Your task to perform on an android device: set an alarm Image 0: 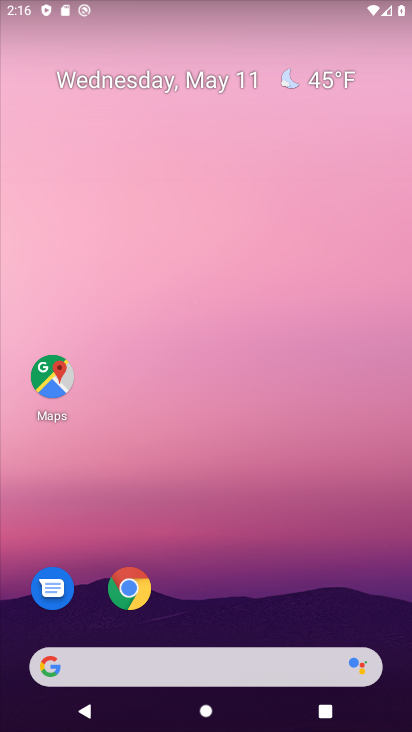
Step 0: drag from (231, 603) to (264, 254)
Your task to perform on an android device: set an alarm Image 1: 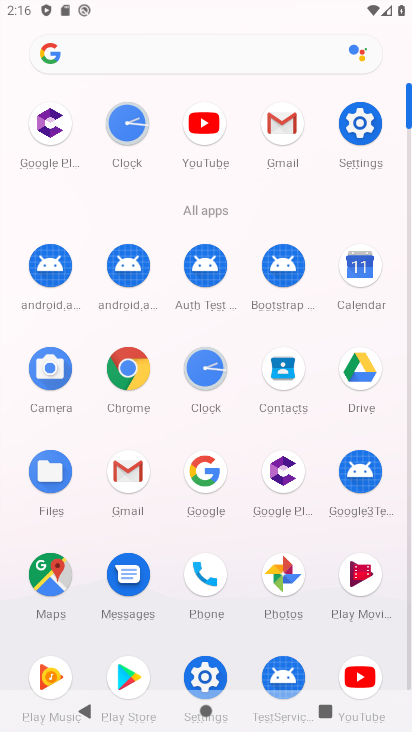
Step 1: click (136, 125)
Your task to perform on an android device: set an alarm Image 2: 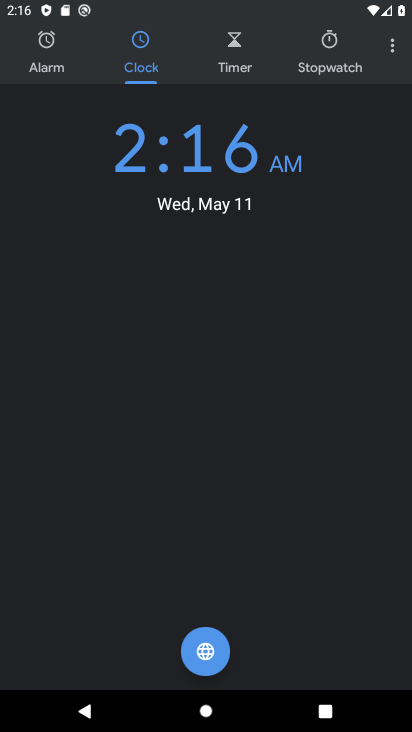
Step 2: click (397, 52)
Your task to perform on an android device: set an alarm Image 3: 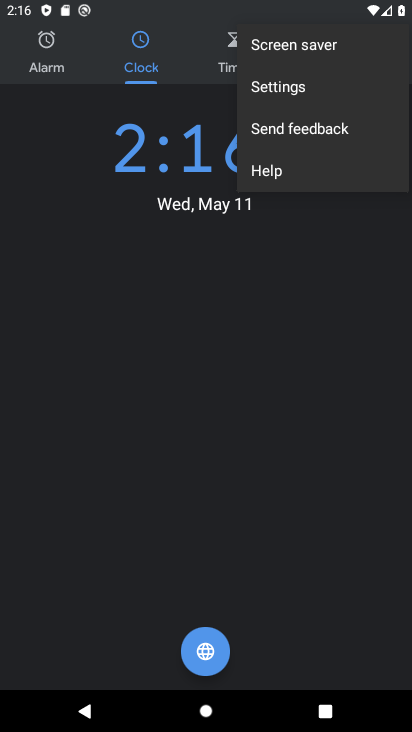
Step 3: click (62, 48)
Your task to perform on an android device: set an alarm Image 4: 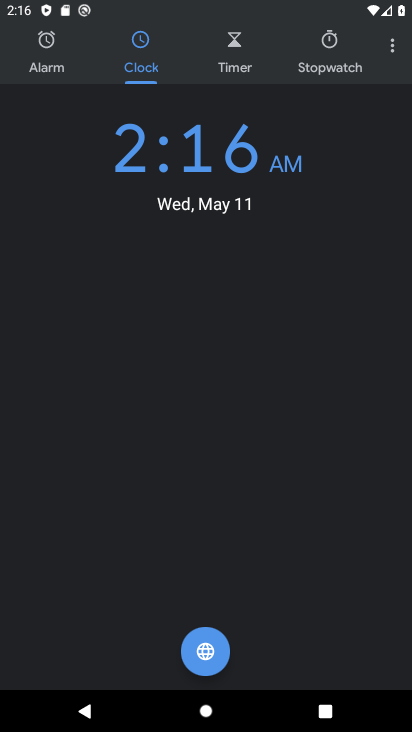
Step 4: click (56, 50)
Your task to perform on an android device: set an alarm Image 5: 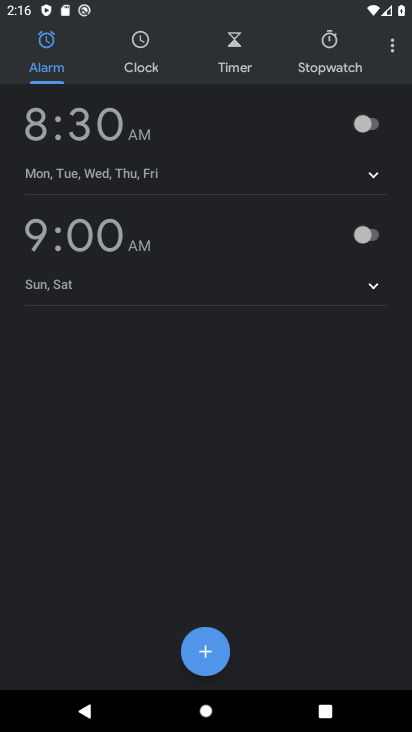
Step 5: click (377, 121)
Your task to perform on an android device: set an alarm Image 6: 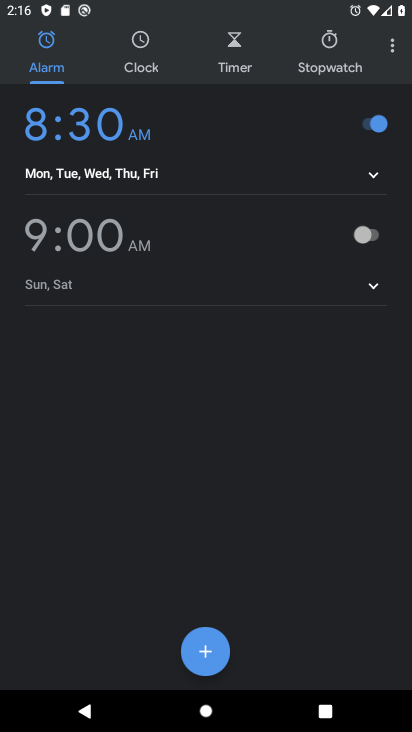
Step 6: task complete